Your task to perform on an android device: Open the calendar and show me this week's events? Image 0: 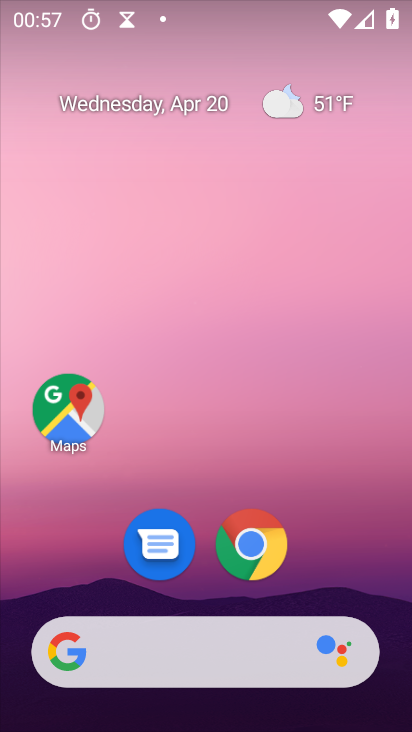
Step 0: drag from (320, 571) to (375, 32)
Your task to perform on an android device: Open the calendar and show me this week's events? Image 1: 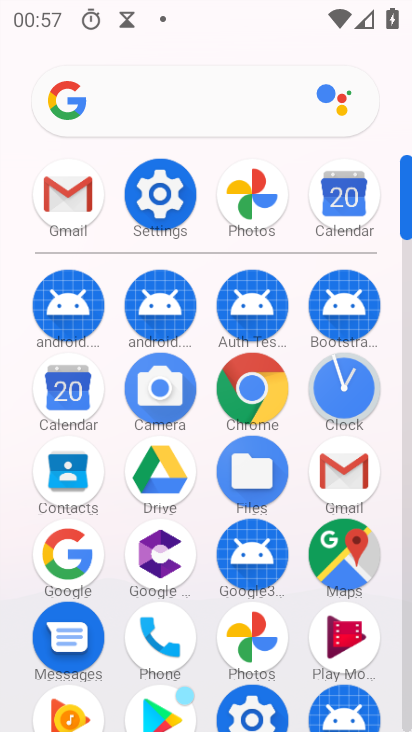
Step 1: click (76, 378)
Your task to perform on an android device: Open the calendar and show me this week's events? Image 2: 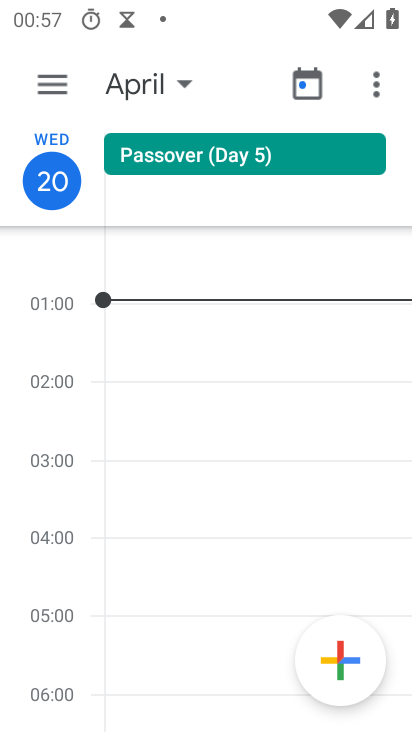
Step 2: click (165, 90)
Your task to perform on an android device: Open the calendar and show me this week's events? Image 3: 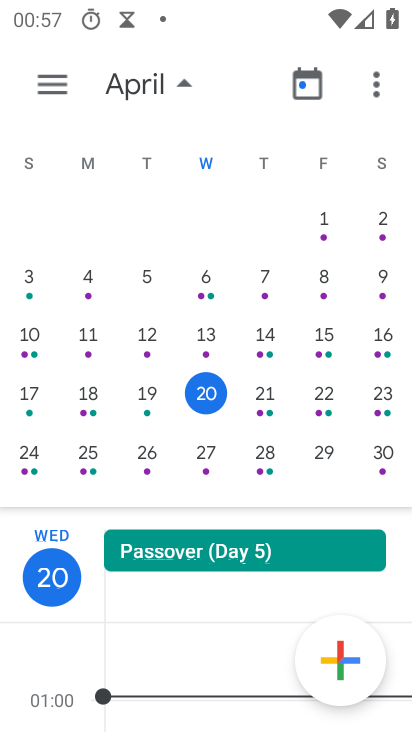
Step 3: click (274, 415)
Your task to perform on an android device: Open the calendar and show me this week's events? Image 4: 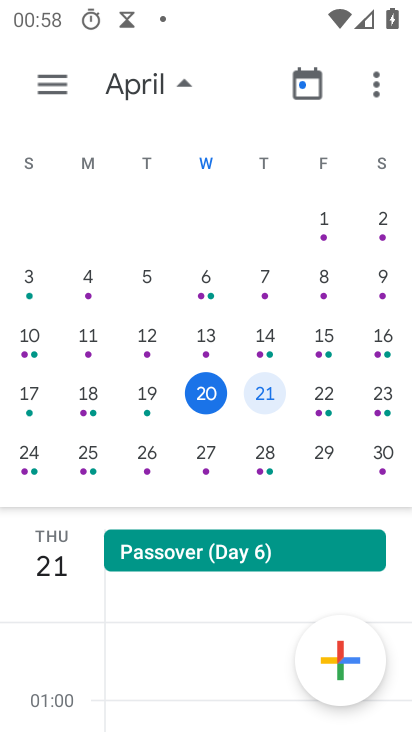
Step 4: click (335, 399)
Your task to perform on an android device: Open the calendar and show me this week's events? Image 5: 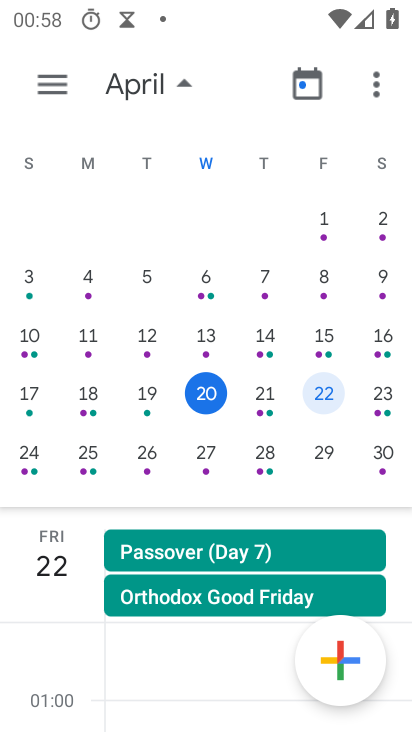
Step 5: click (384, 407)
Your task to perform on an android device: Open the calendar and show me this week's events? Image 6: 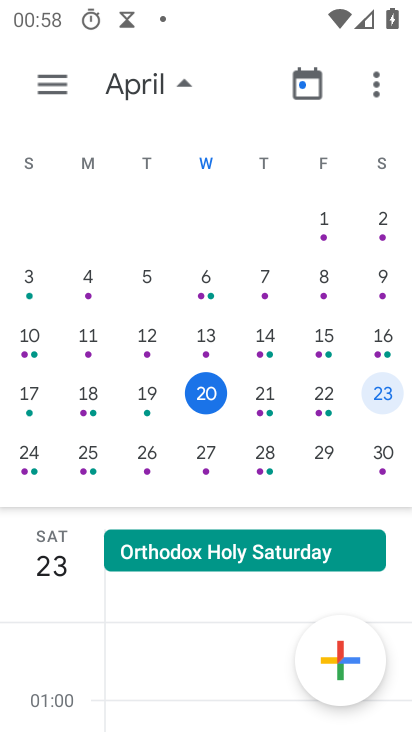
Step 6: task complete